Your task to perform on an android device: Add "rayovac triple a" to the cart on costco.com, then select checkout. Image 0: 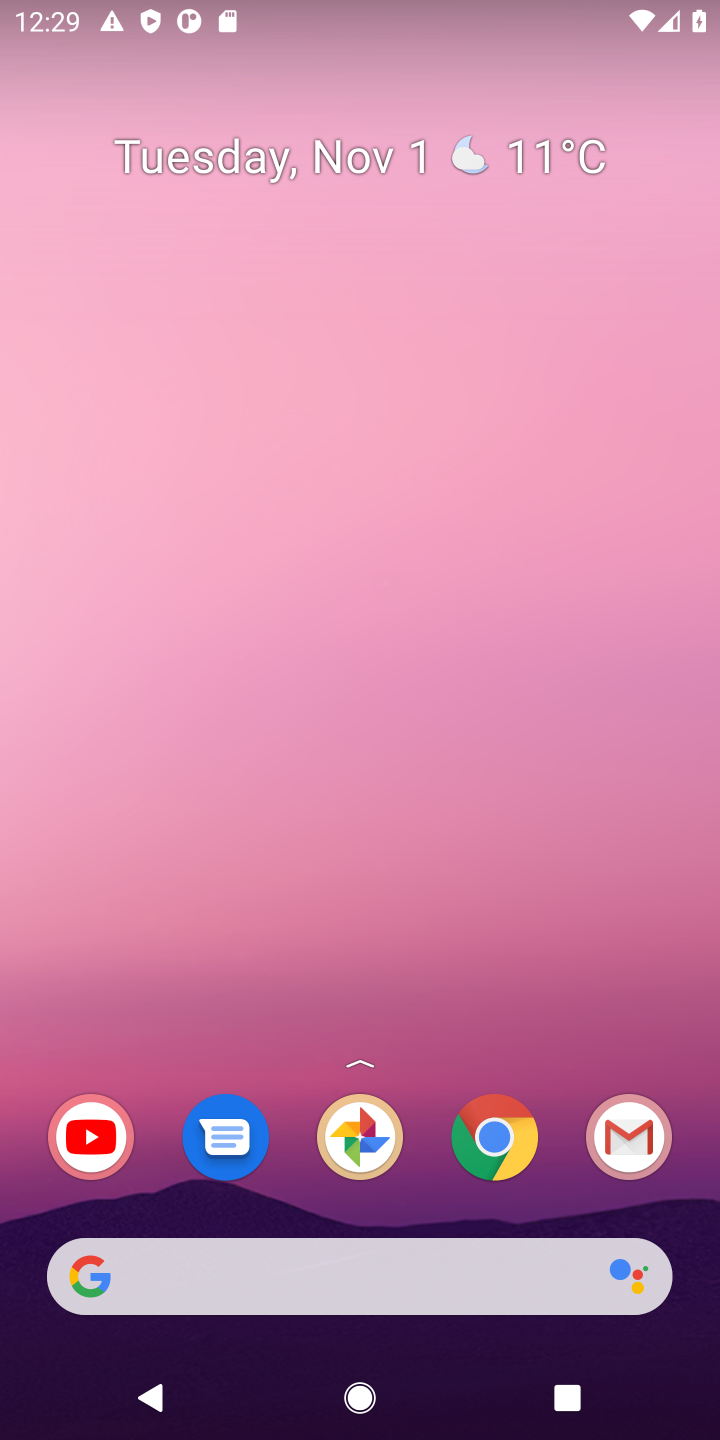
Step 0: click (477, 1145)
Your task to perform on an android device: Add "rayovac triple a" to the cart on costco.com, then select checkout. Image 1: 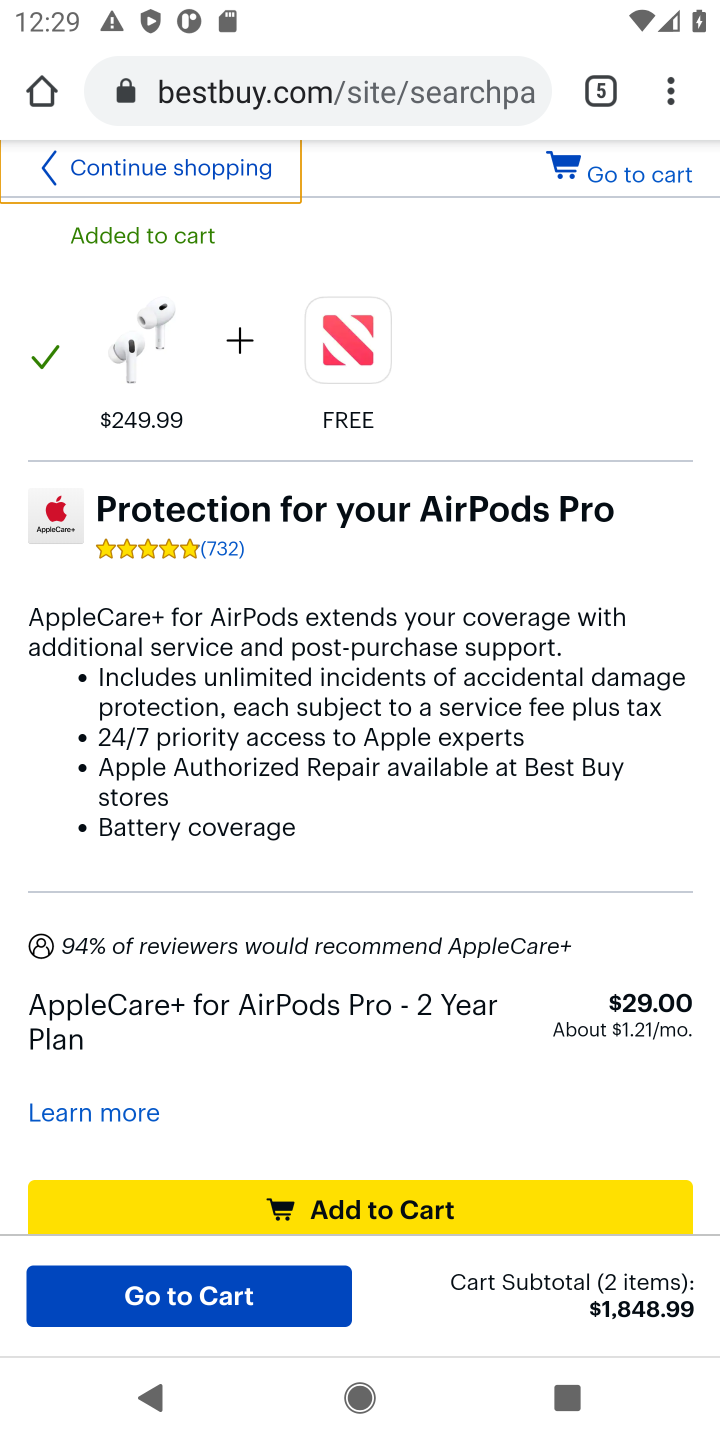
Step 1: click (596, 92)
Your task to perform on an android device: Add "rayovac triple a" to the cart on costco.com, then select checkout. Image 2: 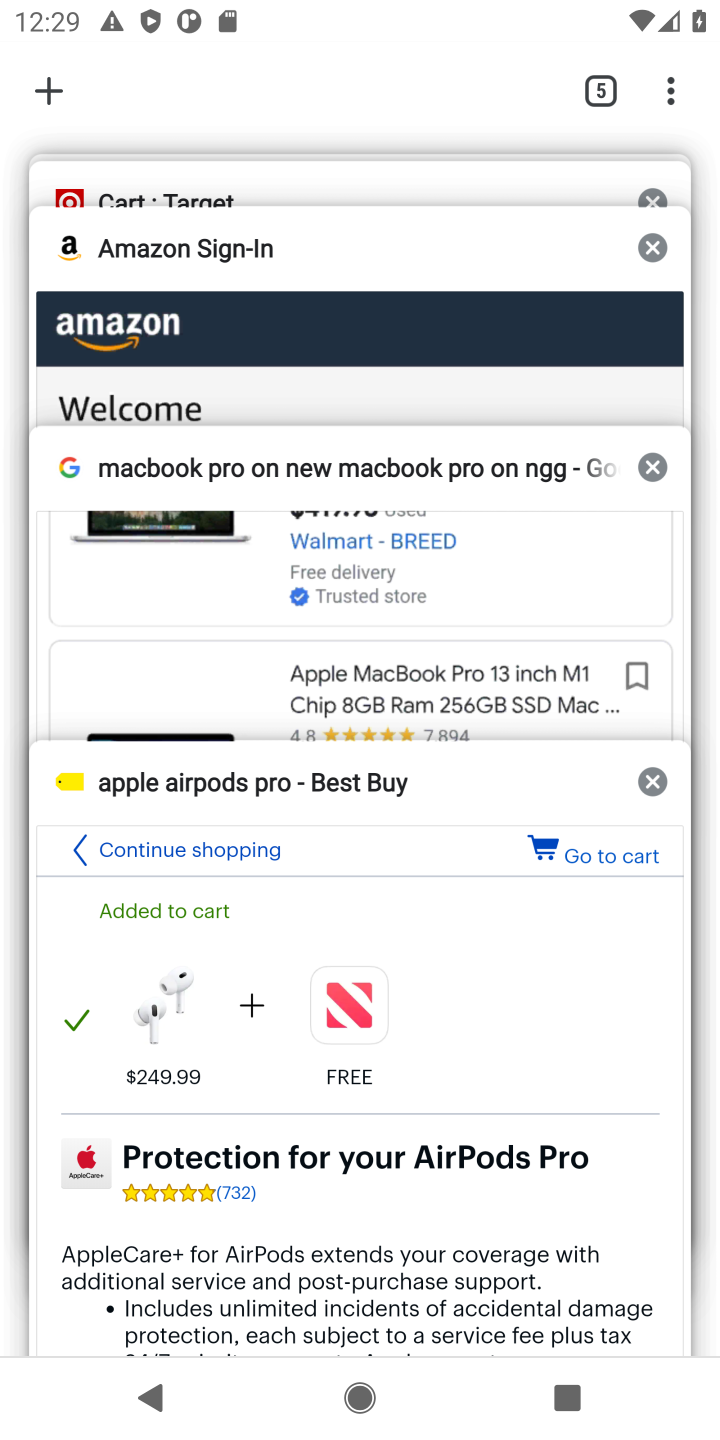
Step 2: drag from (299, 268) to (250, 804)
Your task to perform on an android device: Add "rayovac triple a" to the cart on costco.com, then select checkout. Image 3: 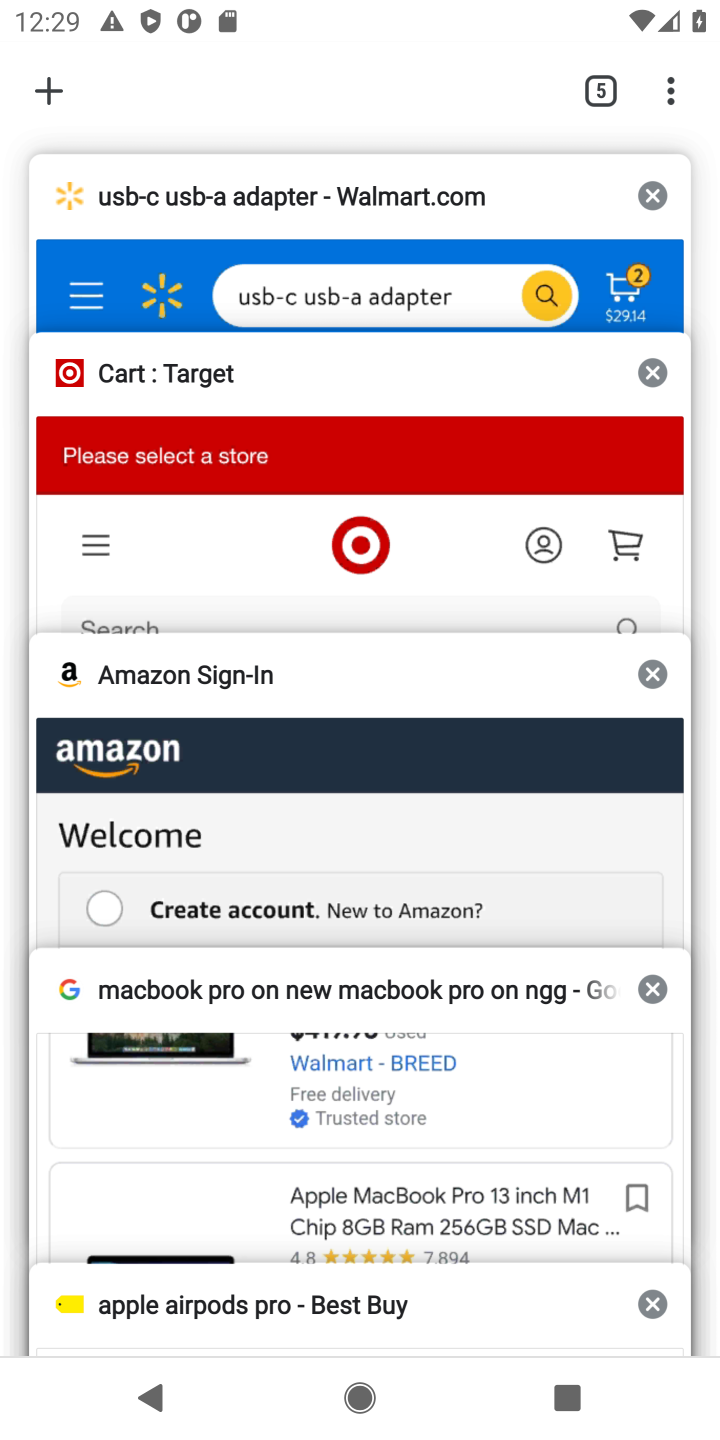
Step 3: click (47, 85)
Your task to perform on an android device: Add "rayovac triple a" to the cart on costco.com, then select checkout. Image 4: 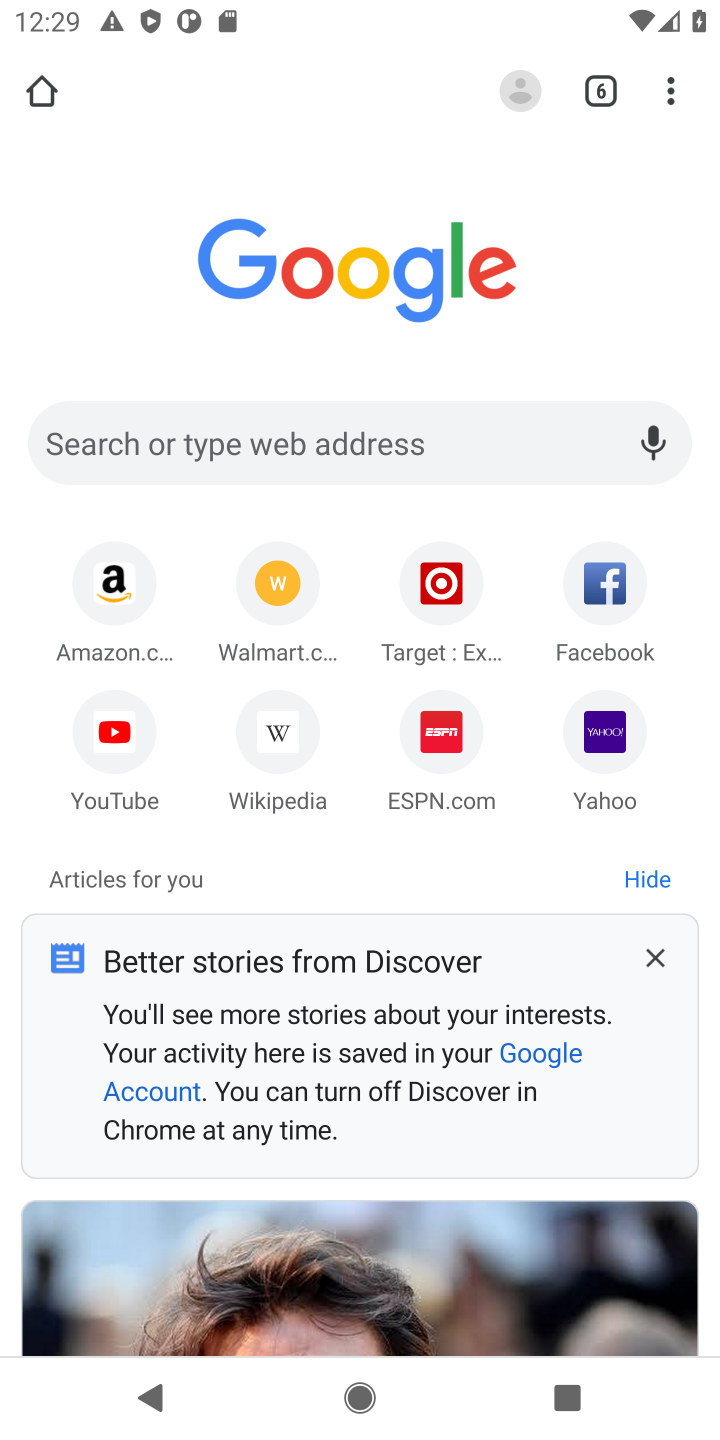
Step 4: click (307, 434)
Your task to perform on an android device: Add "rayovac triple a" to the cart on costco.com, then select checkout. Image 5: 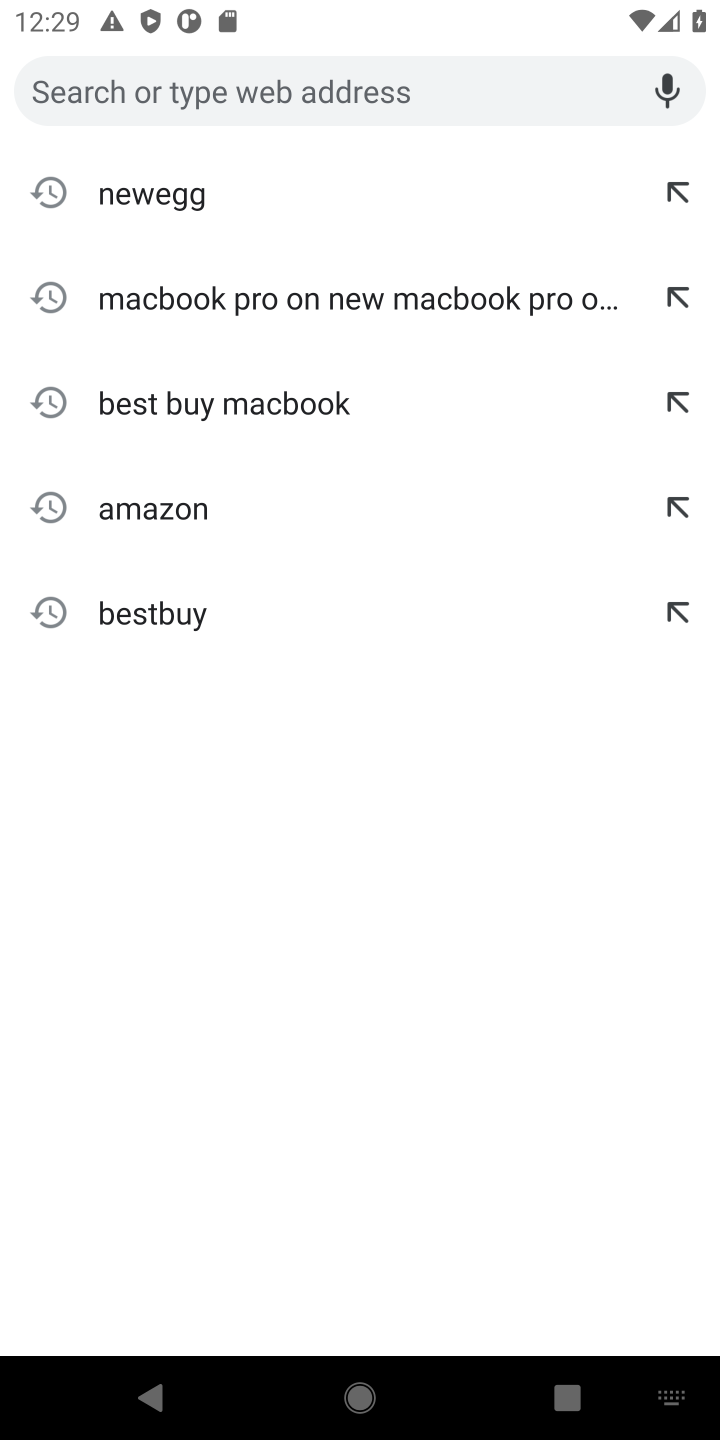
Step 5: type "costco"
Your task to perform on an android device: Add "rayovac triple a" to the cart on costco.com, then select checkout. Image 6: 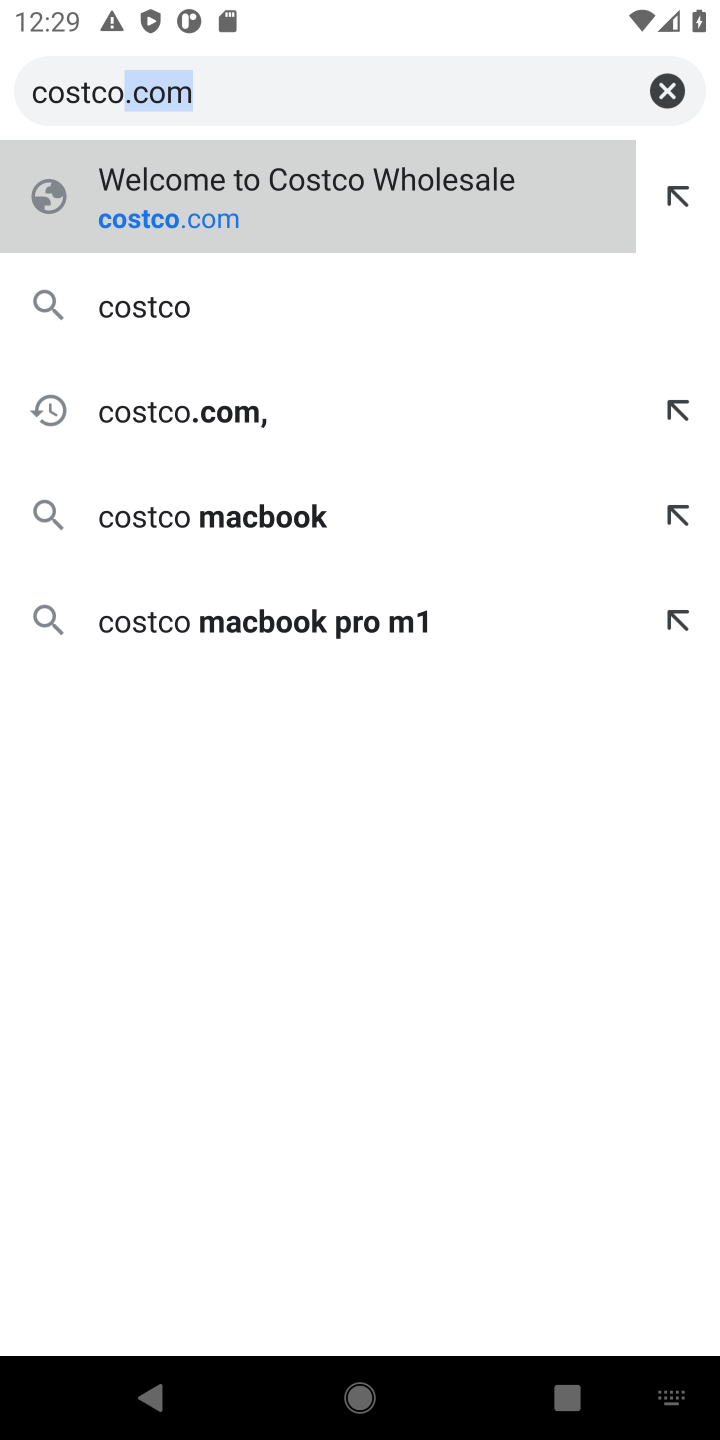
Step 6: click (492, 204)
Your task to perform on an android device: Add "rayovac triple a" to the cart on costco.com, then select checkout. Image 7: 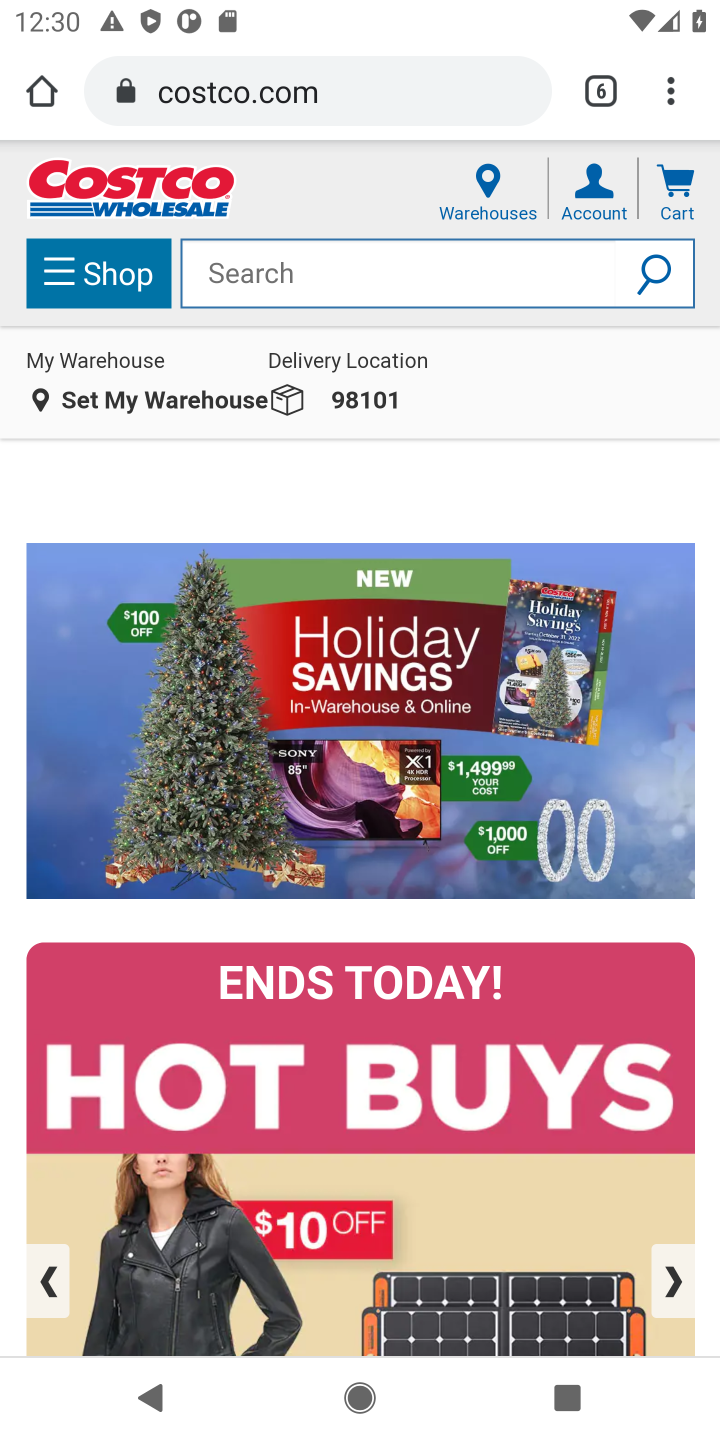
Step 7: click (262, 256)
Your task to perform on an android device: Add "rayovac triple a" to the cart on costco.com, then select checkout. Image 8: 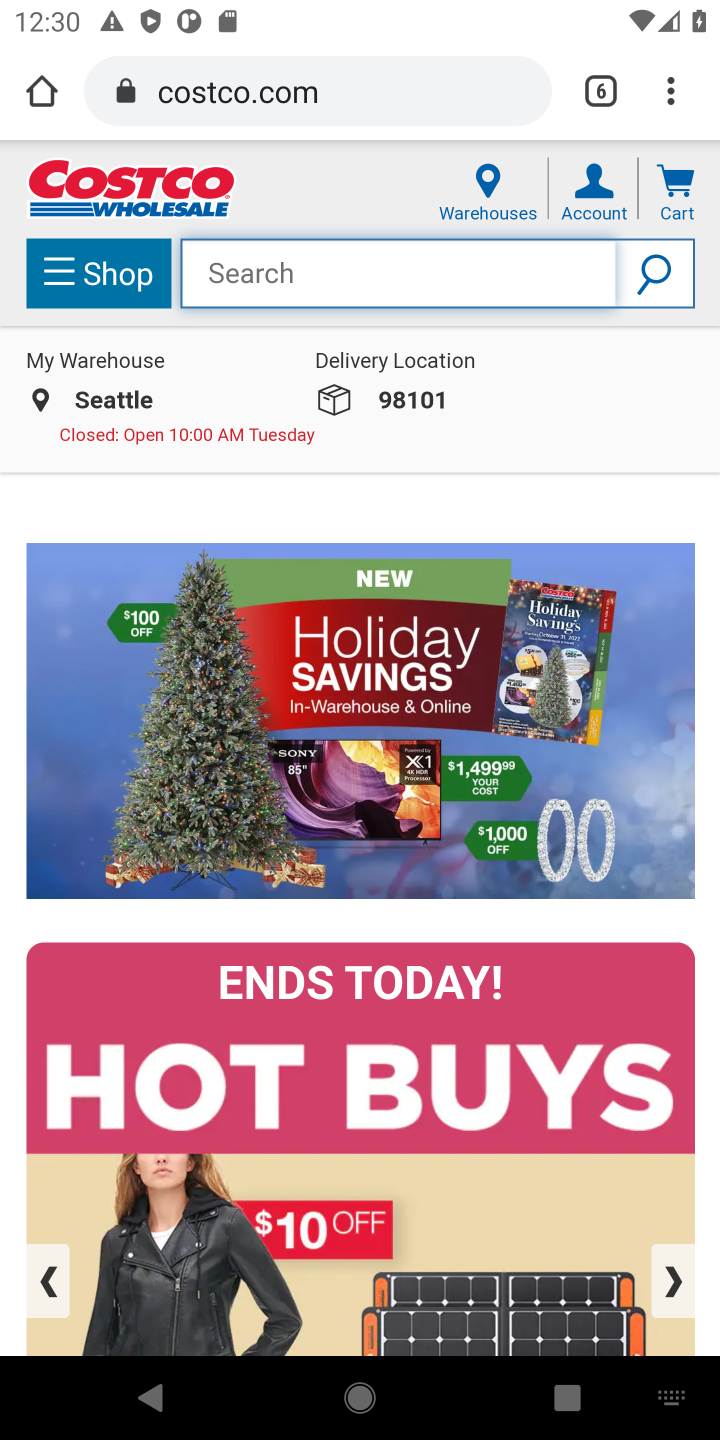
Step 8: type "rayovac triple a"
Your task to perform on an android device: Add "rayovac triple a" to the cart on costco.com, then select checkout. Image 9: 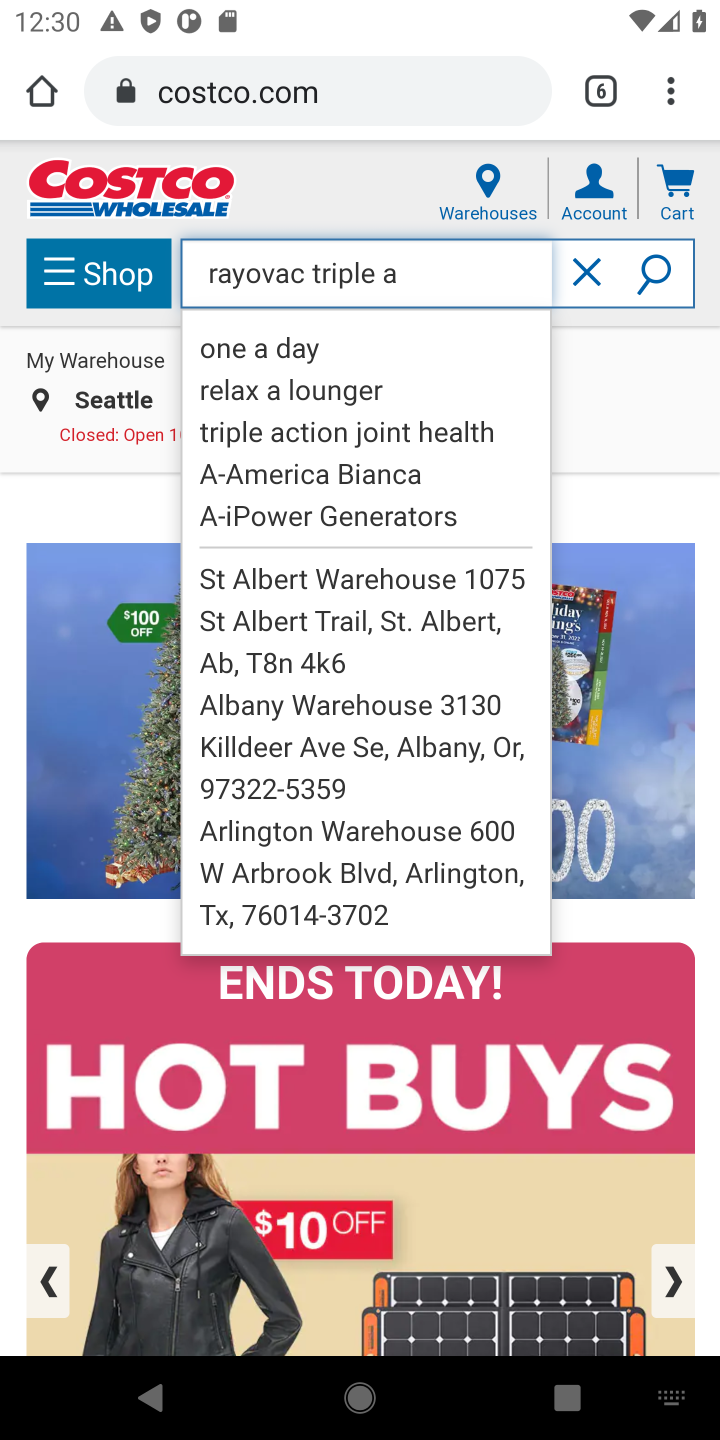
Step 9: click (284, 430)
Your task to perform on an android device: Add "rayovac triple a" to the cart on costco.com, then select checkout. Image 10: 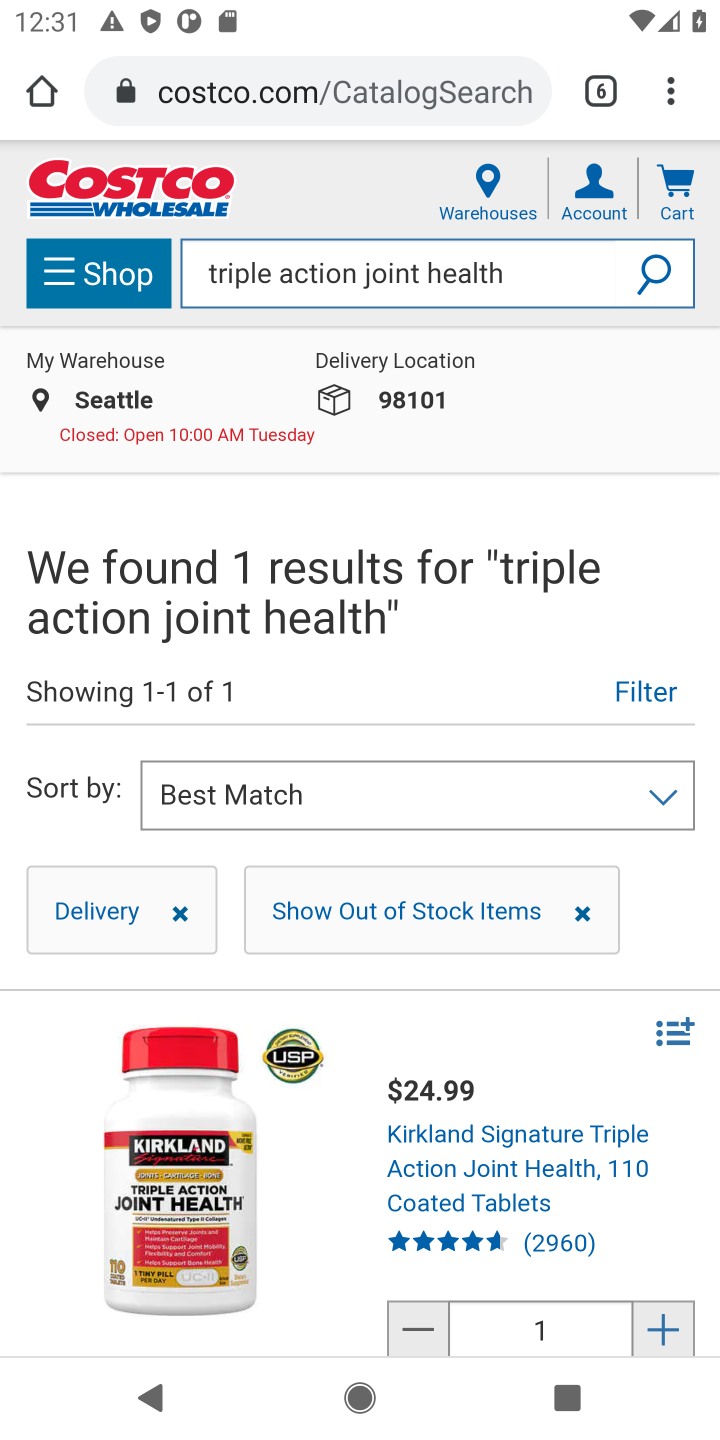
Step 10: click (546, 276)
Your task to perform on an android device: Add "rayovac triple a" to the cart on costco.com, then select checkout. Image 11: 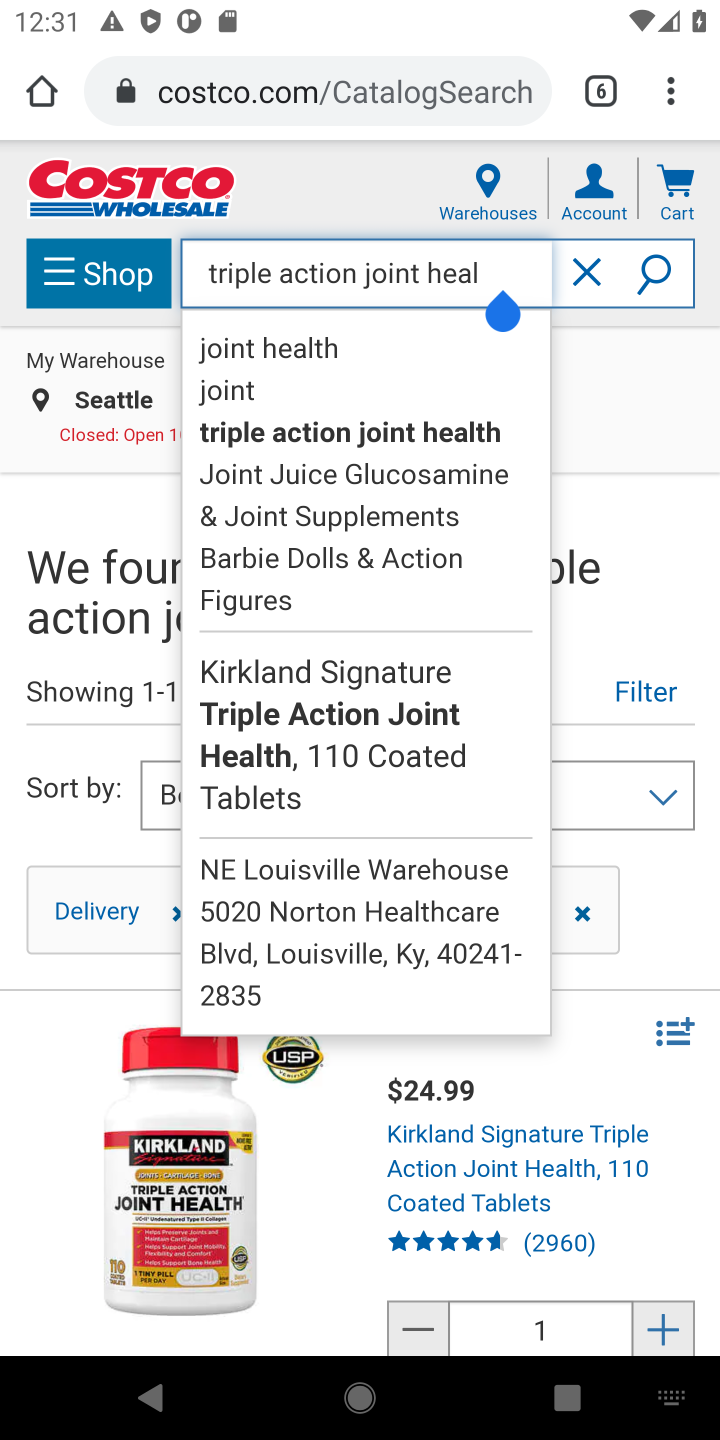
Step 11: click (594, 274)
Your task to perform on an android device: Add "rayovac triple a" to the cart on costco.com, then select checkout. Image 12: 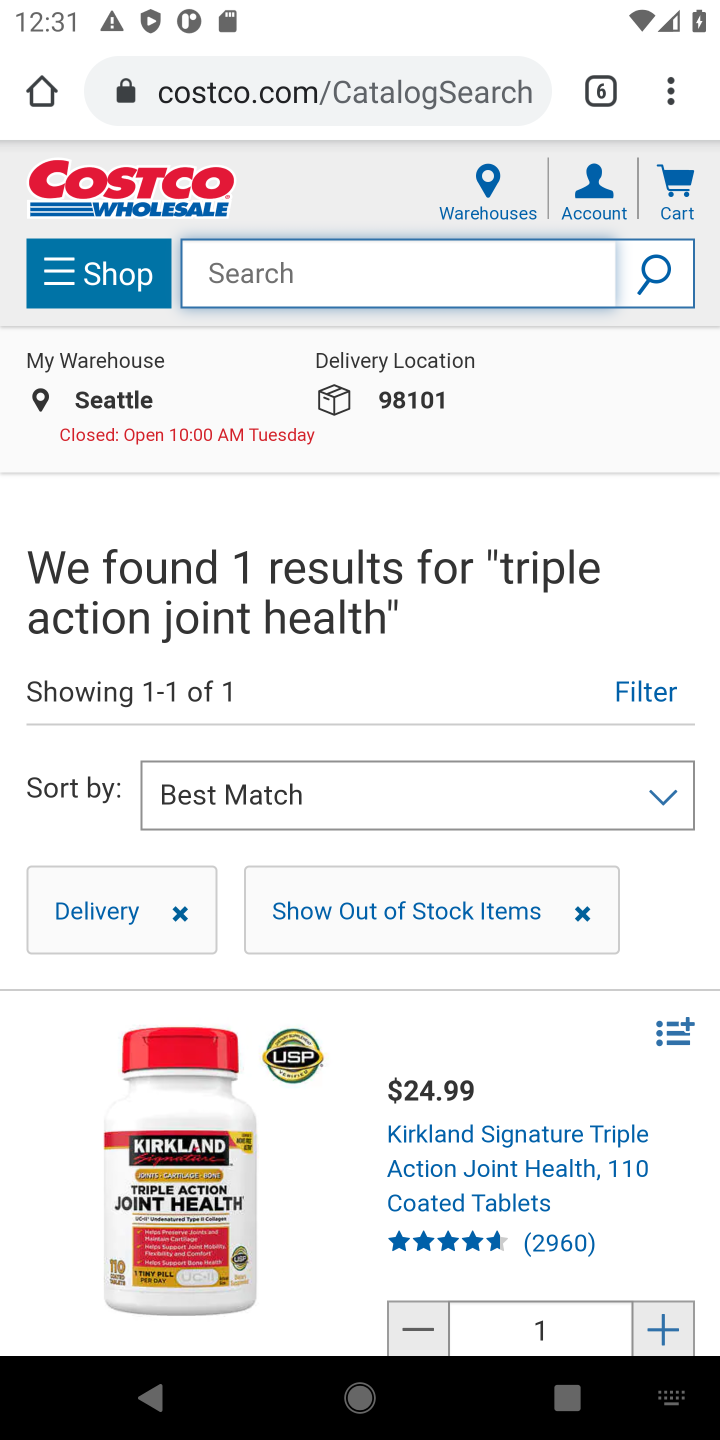
Step 12: type "rayovac"
Your task to perform on an android device: Add "rayovac triple a" to the cart on costco.com, then select checkout. Image 13: 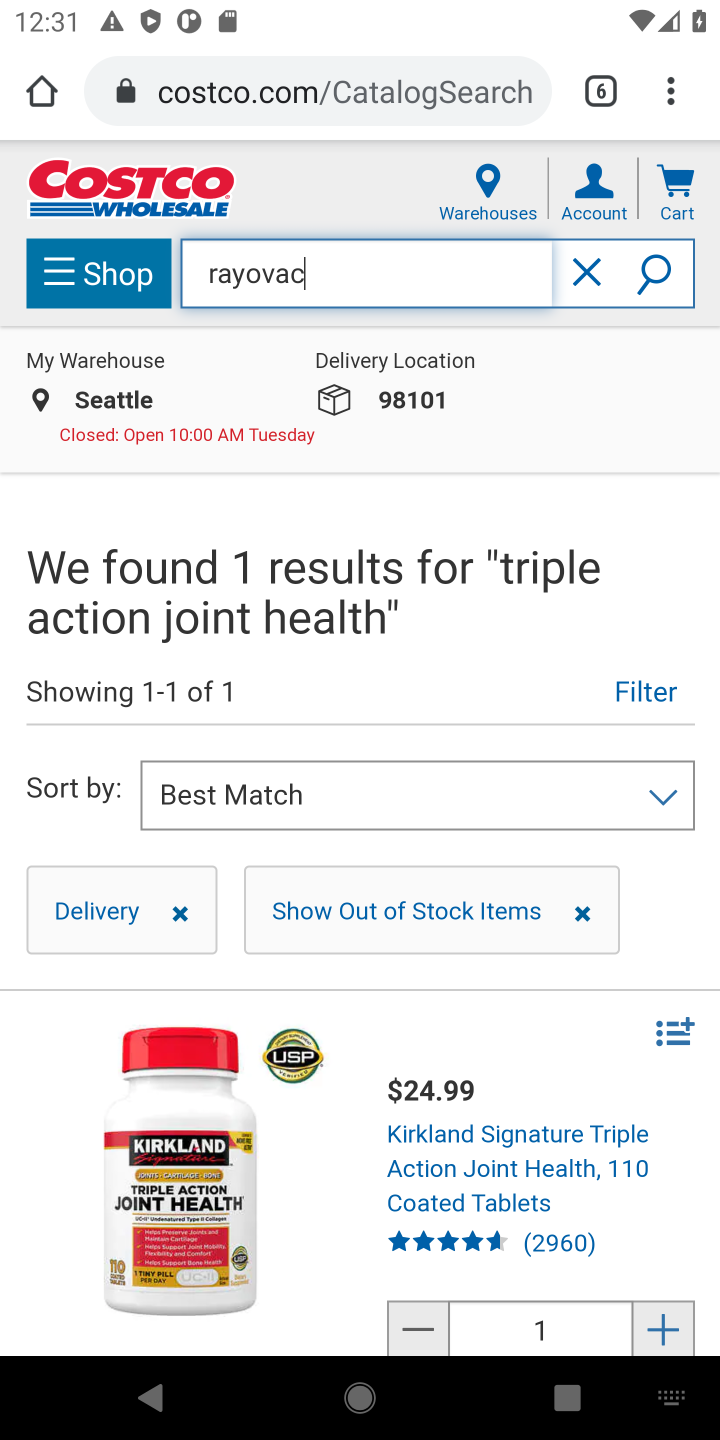
Step 13: click (649, 272)
Your task to perform on an android device: Add "rayovac triple a" to the cart on costco.com, then select checkout. Image 14: 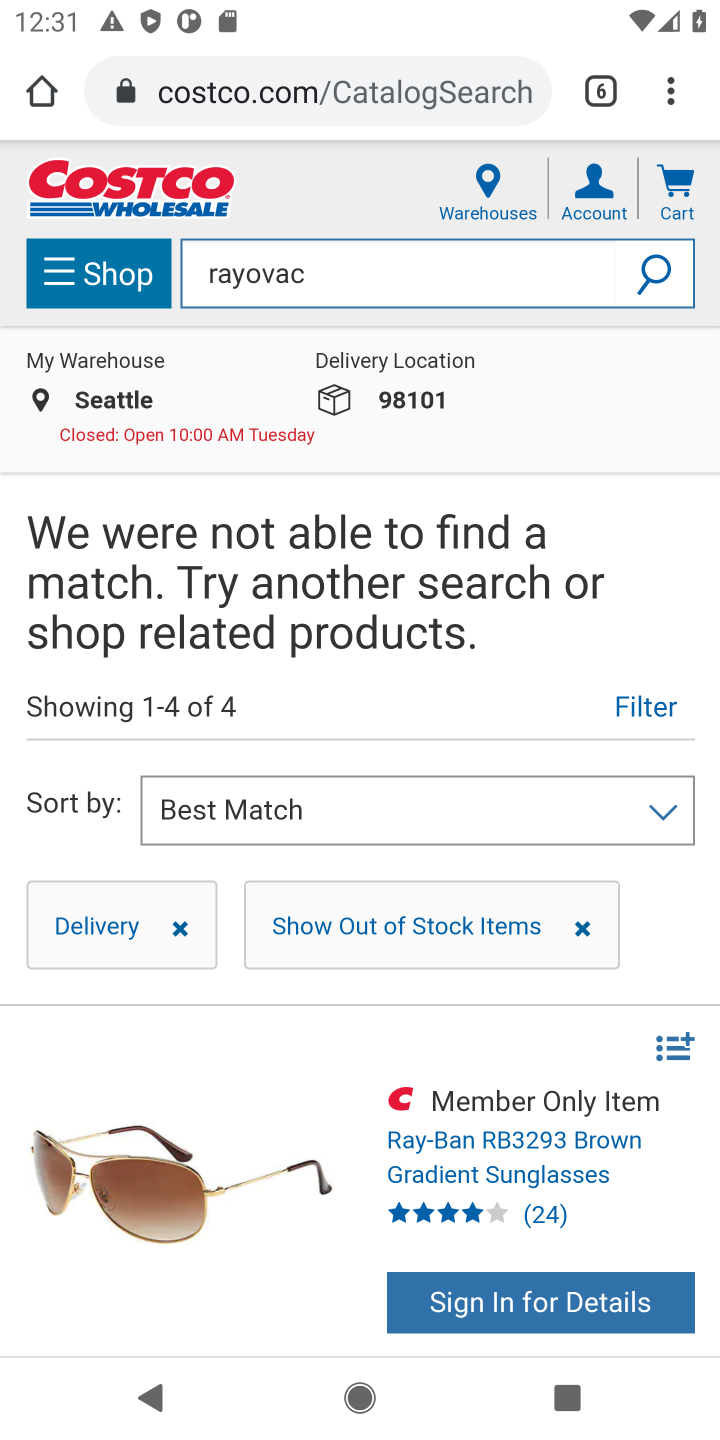
Step 14: drag from (288, 1241) to (415, 139)
Your task to perform on an android device: Add "rayovac triple a" to the cart on costco.com, then select checkout. Image 15: 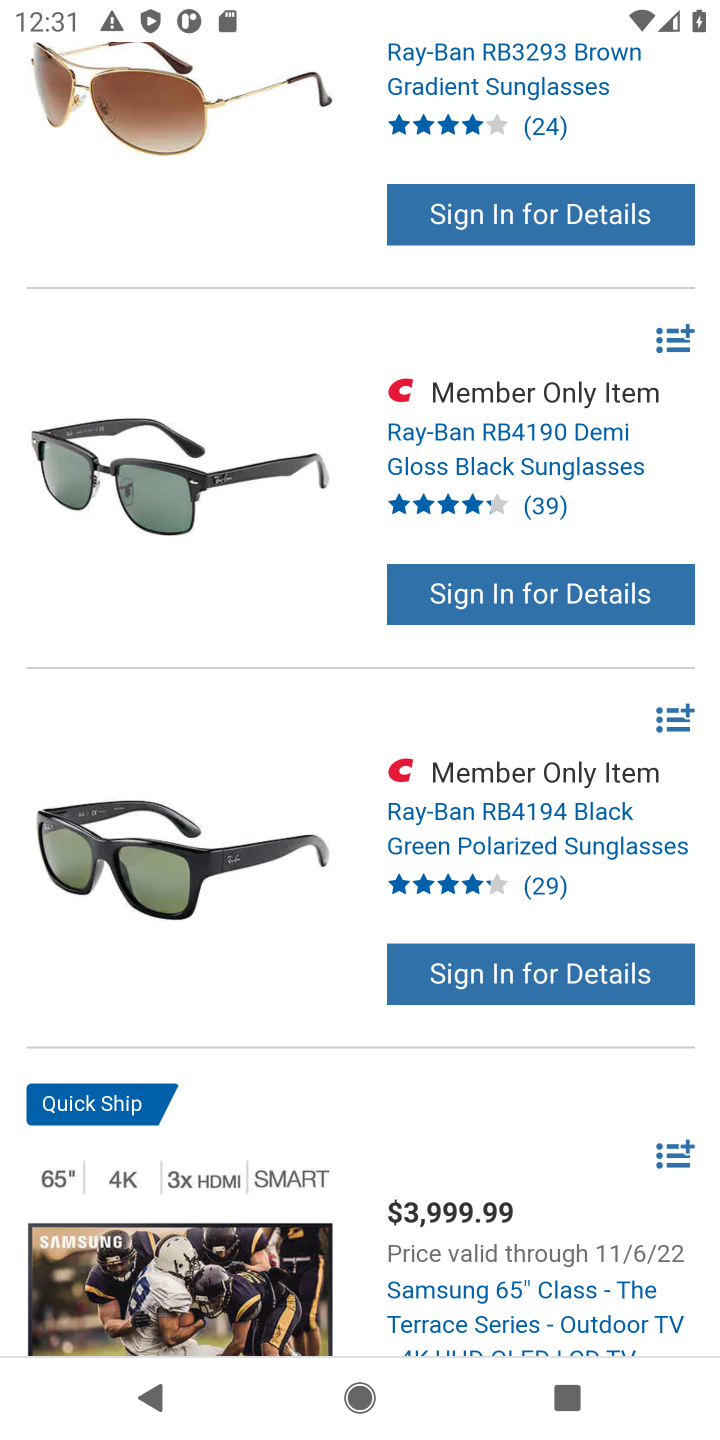
Step 15: click (478, 1300)
Your task to perform on an android device: Add "rayovac triple a" to the cart on costco.com, then select checkout. Image 16: 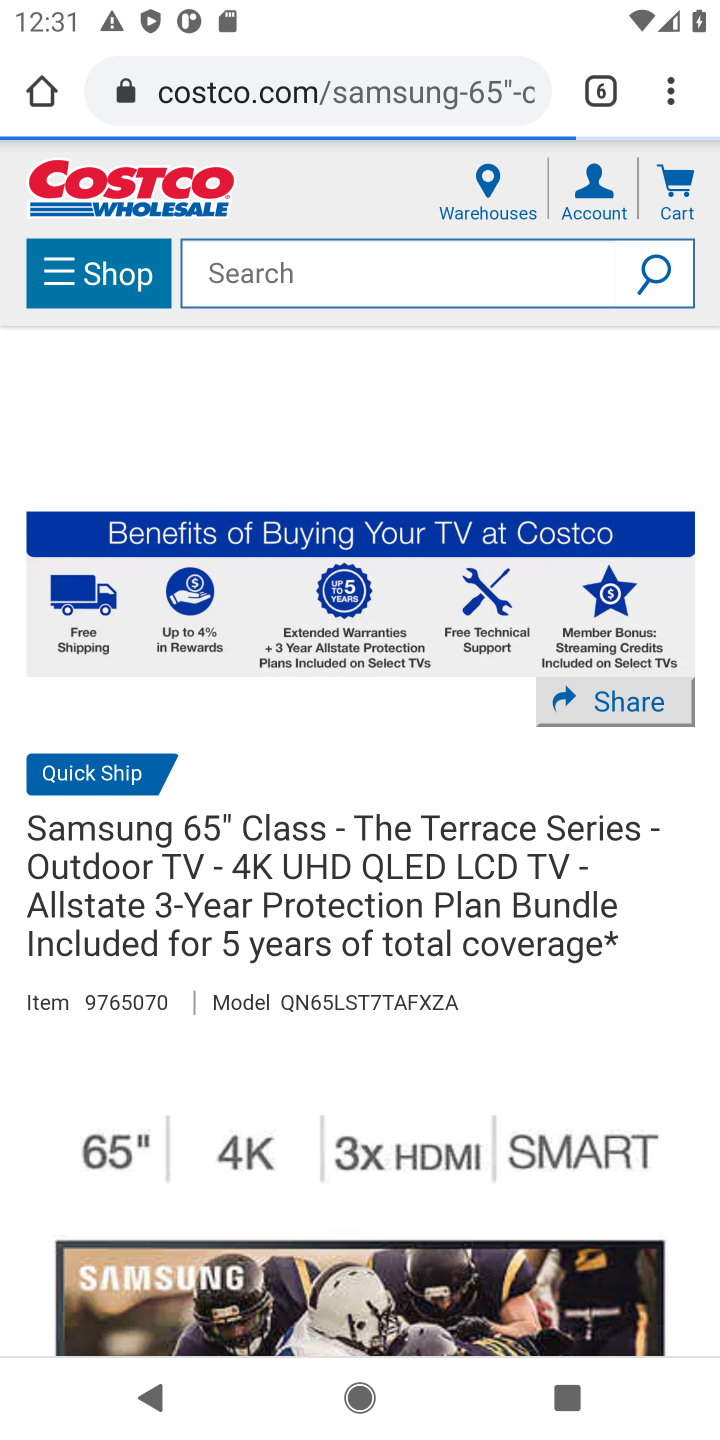
Step 16: drag from (510, 1068) to (644, 38)
Your task to perform on an android device: Add "rayovac triple a" to the cart on costco.com, then select checkout. Image 17: 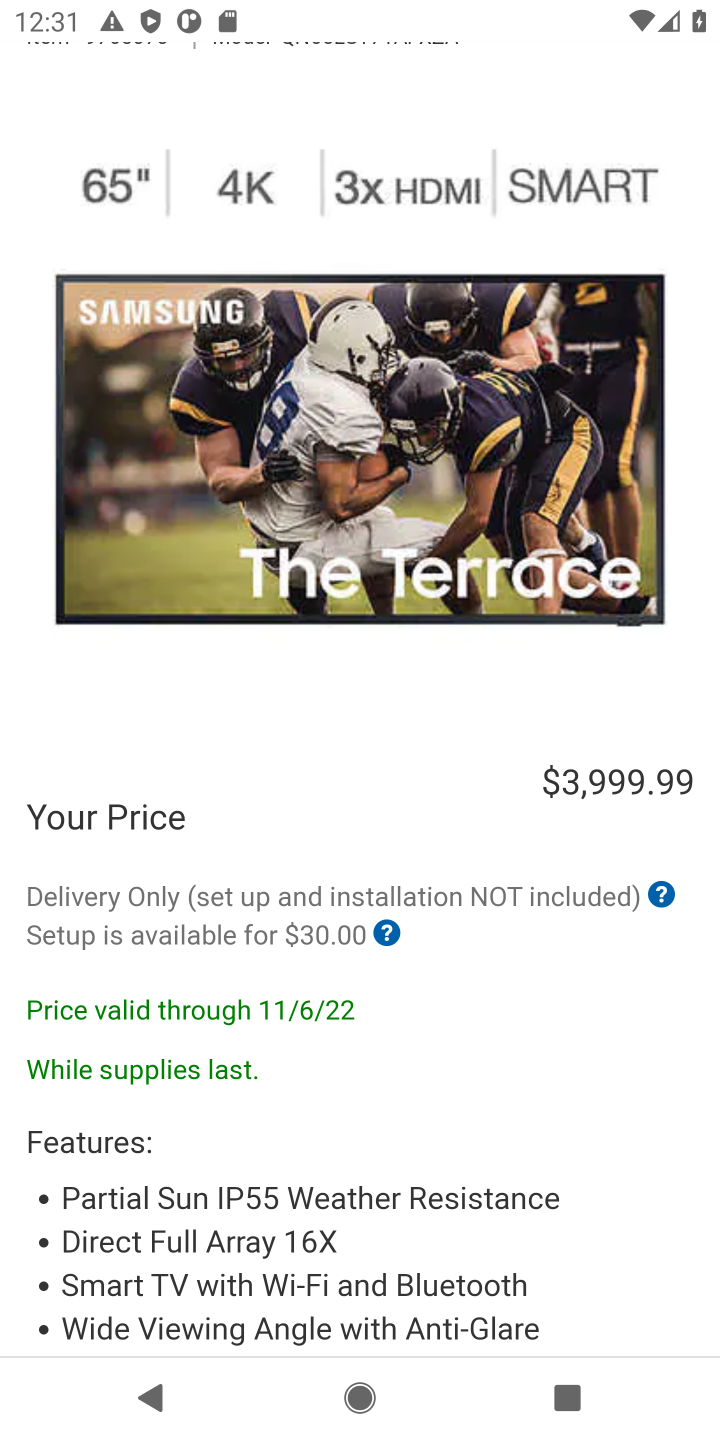
Step 17: drag from (494, 941) to (589, 482)
Your task to perform on an android device: Add "rayovac triple a" to the cart on costco.com, then select checkout. Image 18: 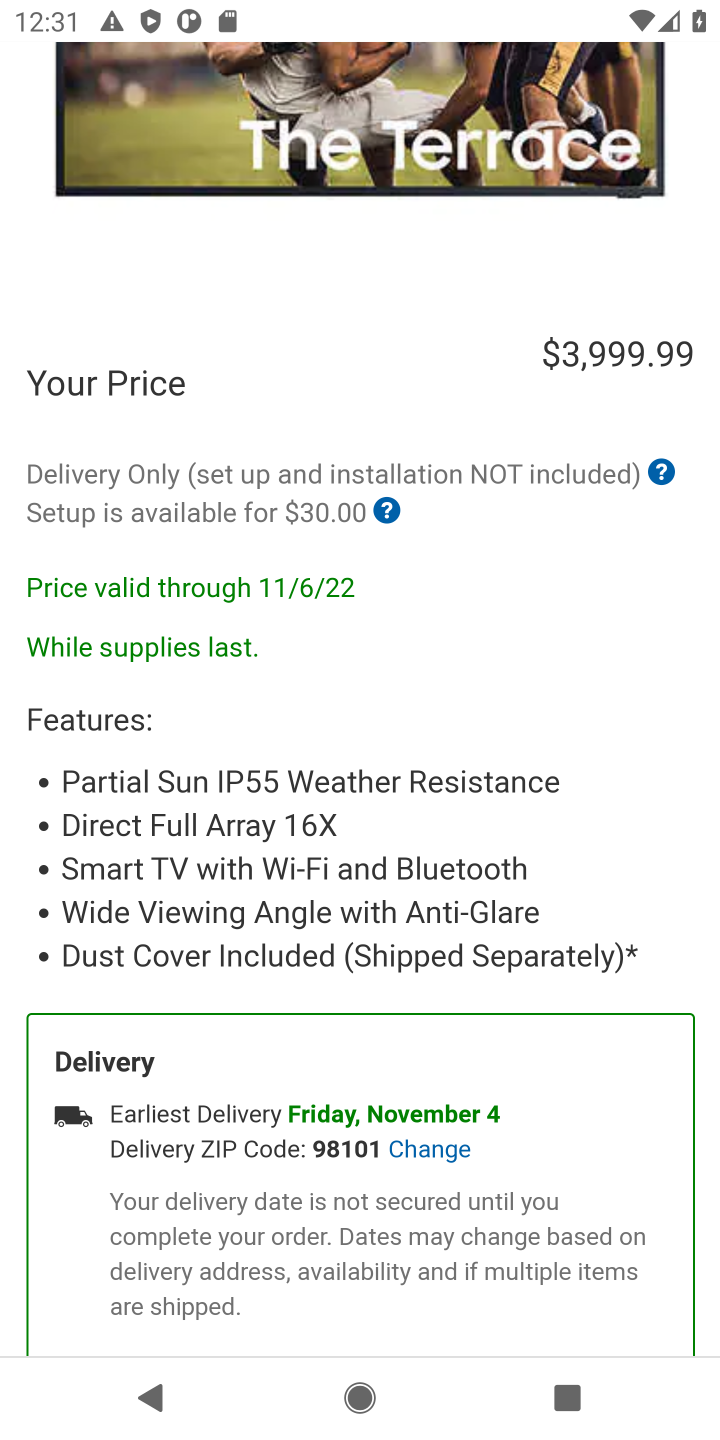
Step 18: drag from (436, 1287) to (592, 278)
Your task to perform on an android device: Add "rayovac triple a" to the cart on costco.com, then select checkout. Image 19: 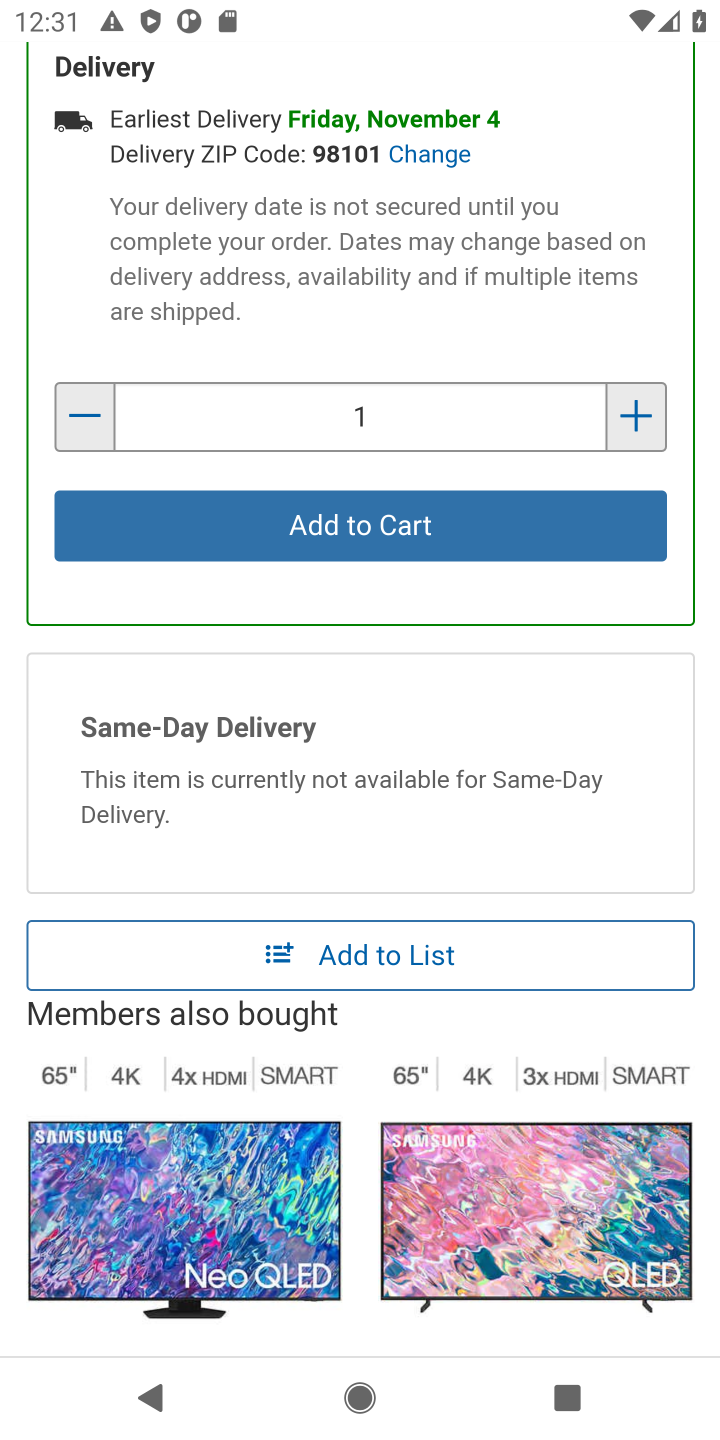
Step 19: click (372, 511)
Your task to perform on an android device: Add "rayovac triple a" to the cart on costco.com, then select checkout. Image 20: 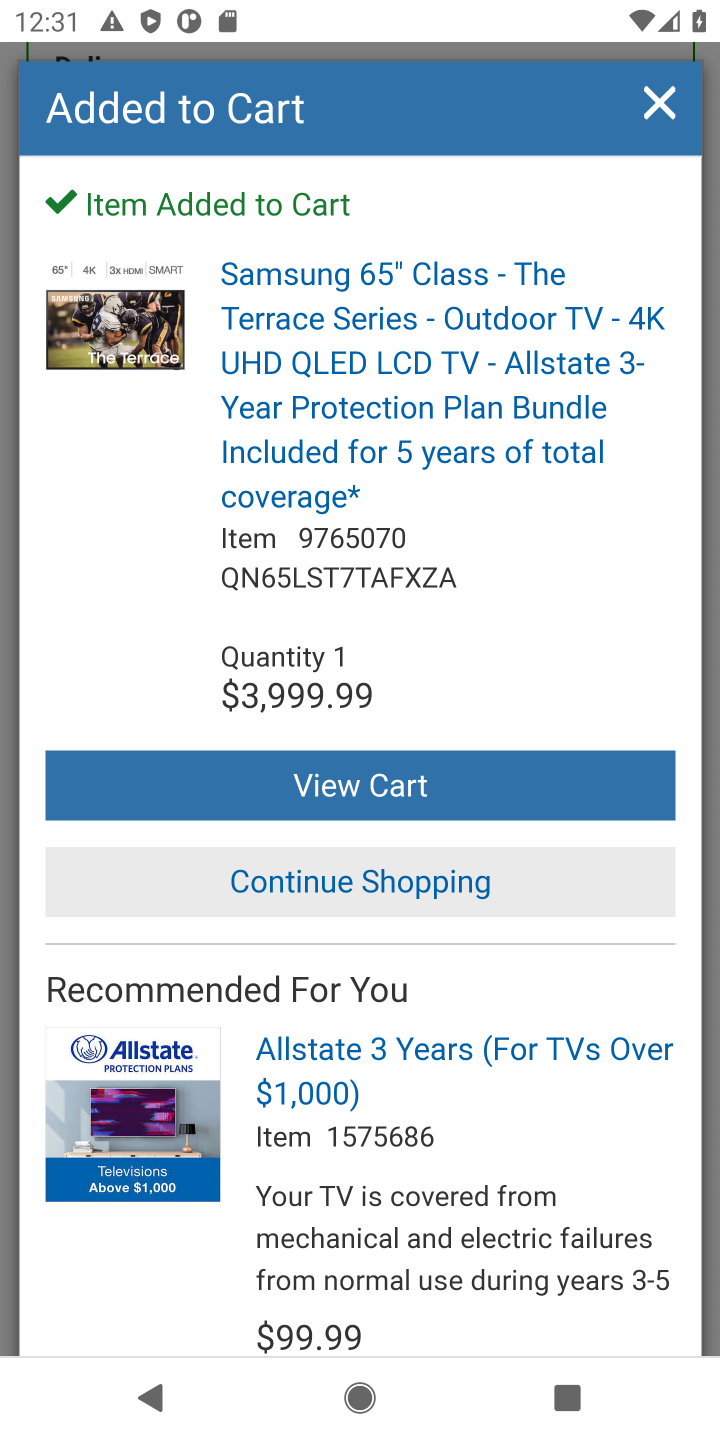
Step 20: task complete